Your task to perform on an android device: find snoozed emails in the gmail app Image 0: 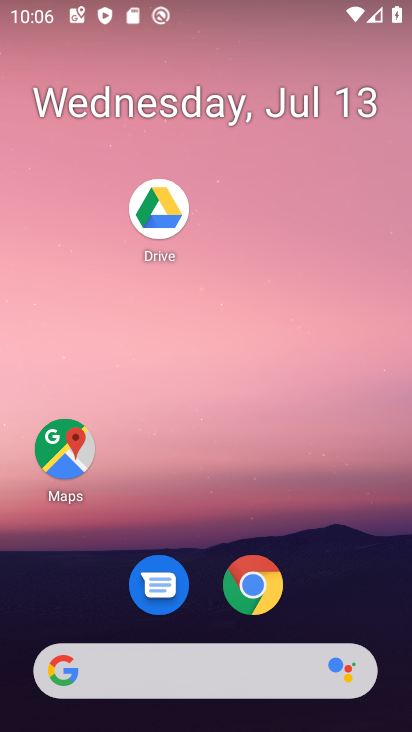
Step 0: drag from (250, 650) to (397, 72)
Your task to perform on an android device: find snoozed emails in the gmail app Image 1: 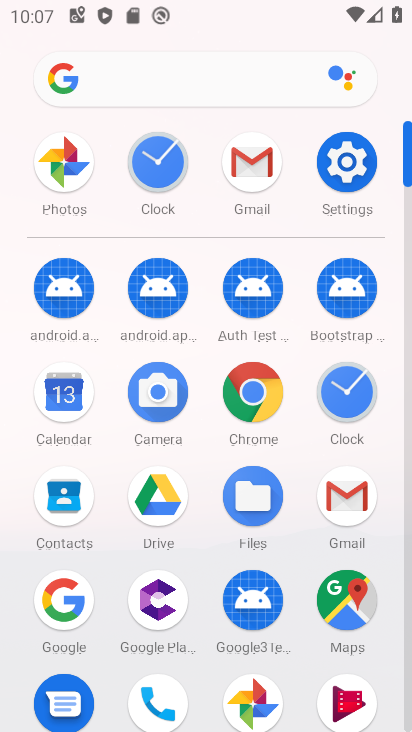
Step 1: click (249, 171)
Your task to perform on an android device: find snoozed emails in the gmail app Image 2: 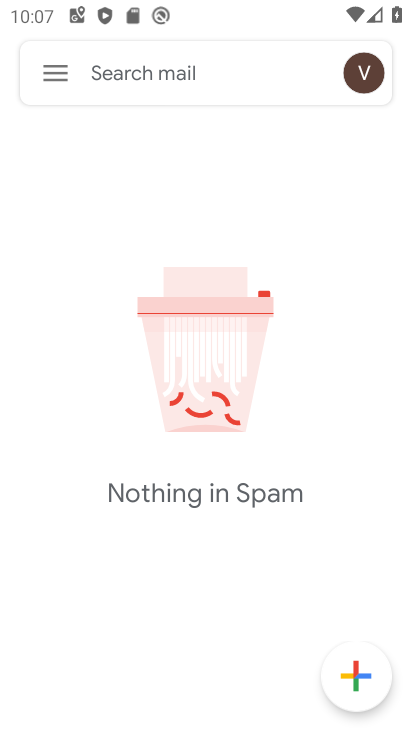
Step 2: click (54, 72)
Your task to perform on an android device: find snoozed emails in the gmail app Image 3: 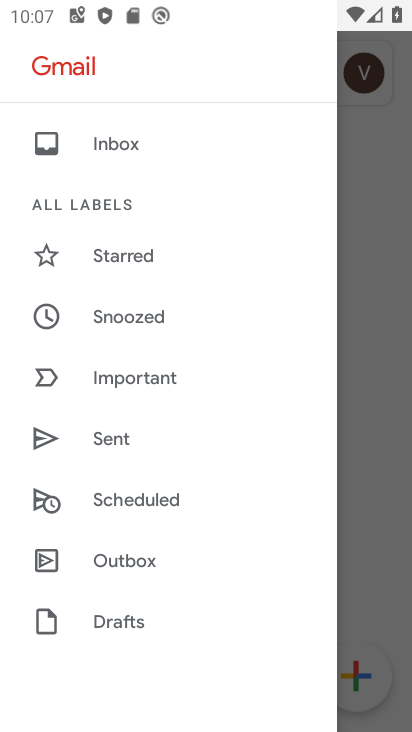
Step 3: click (115, 311)
Your task to perform on an android device: find snoozed emails in the gmail app Image 4: 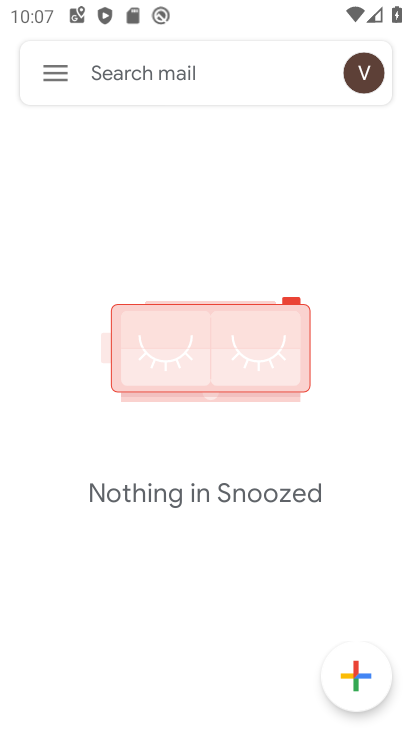
Step 4: task complete